Your task to perform on an android device: Do I have any events today? Image 0: 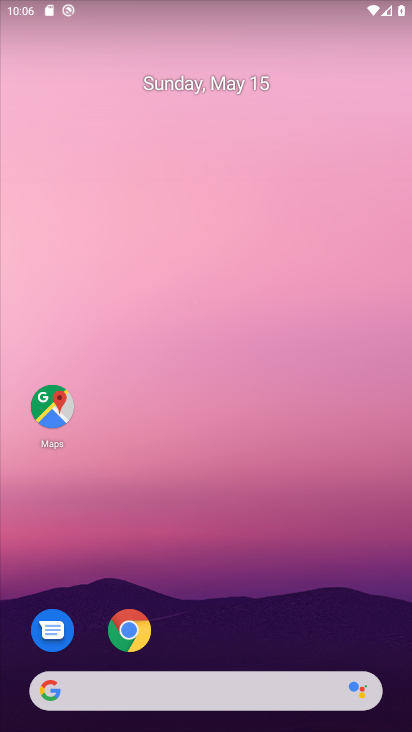
Step 0: drag from (212, 646) to (216, 138)
Your task to perform on an android device: Do I have any events today? Image 1: 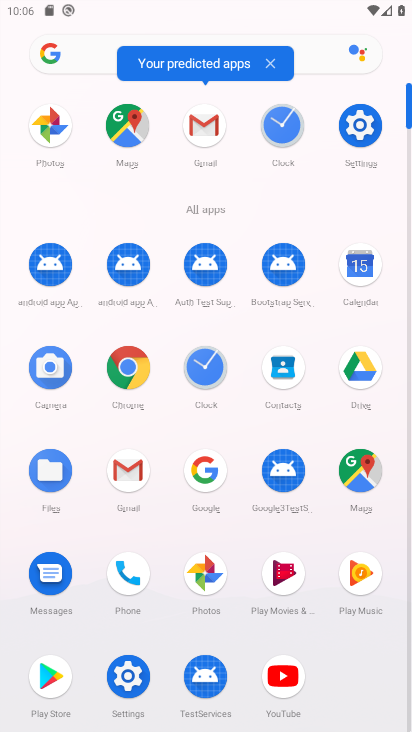
Step 1: click (361, 261)
Your task to perform on an android device: Do I have any events today? Image 2: 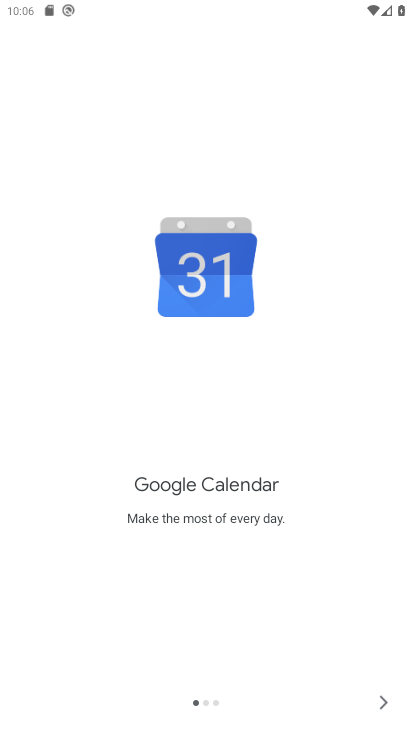
Step 2: click (379, 697)
Your task to perform on an android device: Do I have any events today? Image 3: 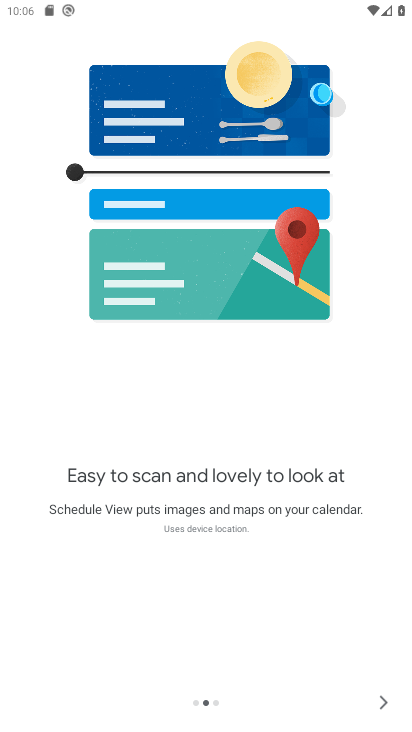
Step 3: click (381, 700)
Your task to perform on an android device: Do I have any events today? Image 4: 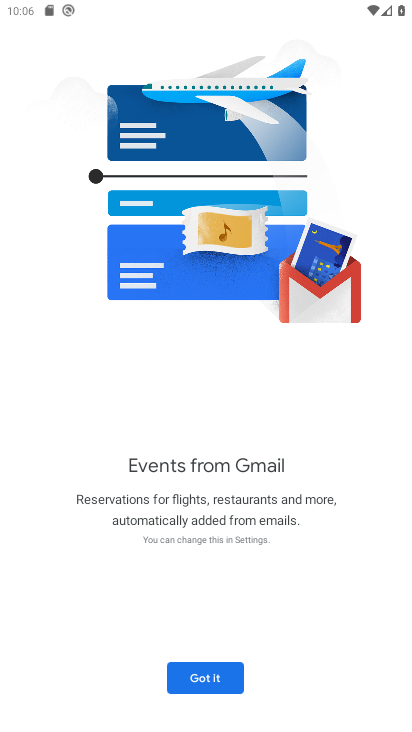
Step 4: click (200, 673)
Your task to perform on an android device: Do I have any events today? Image 5: 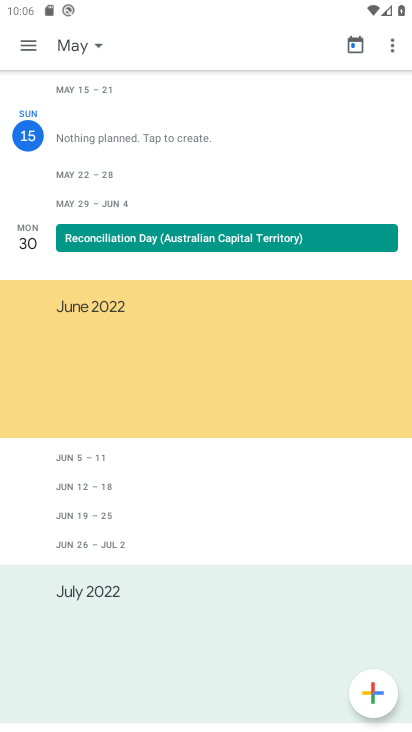
Step 5: click (22, 37)
Your task to perform on an android device: Do I have any events today? Image 6: 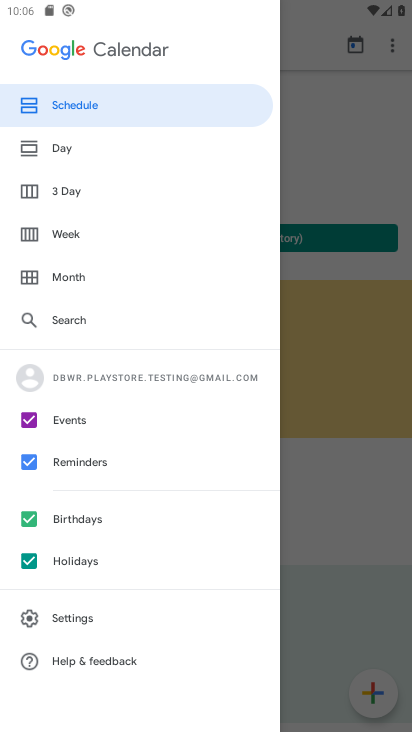
Step 6: click (57, 149)
Your task to perform on an android device: Do I have any events today? Image 7: 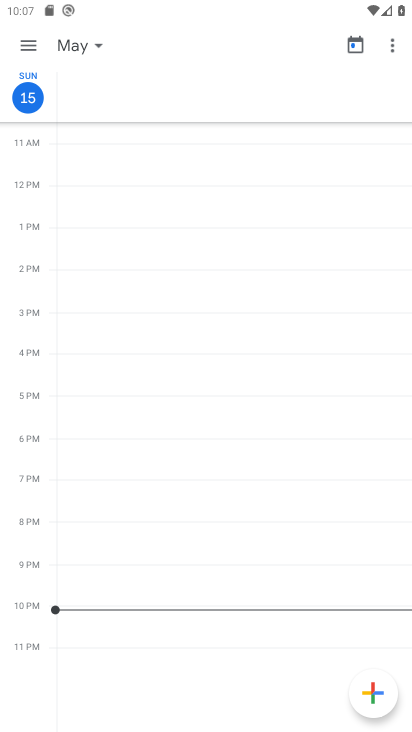
Step 7: task complete